Your task to perform on an android device: Add sony triple a to the cart on bestbuy, then select checkout. Image 0: 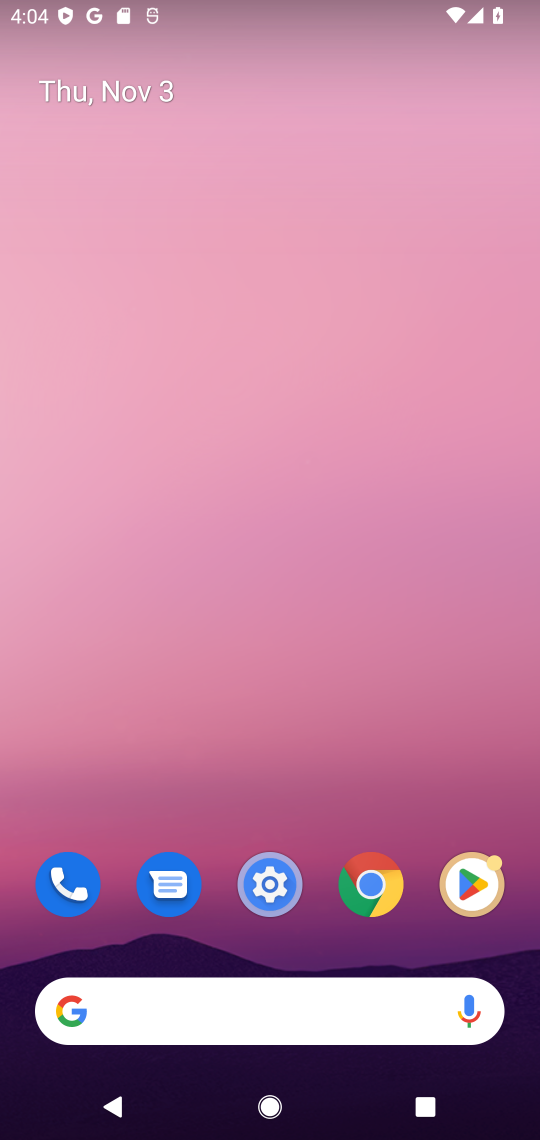
Step 0: press home button
Your task to perform on an android device: Add sony triple a to the cart on bestbuy, then select checkout. Image 1: 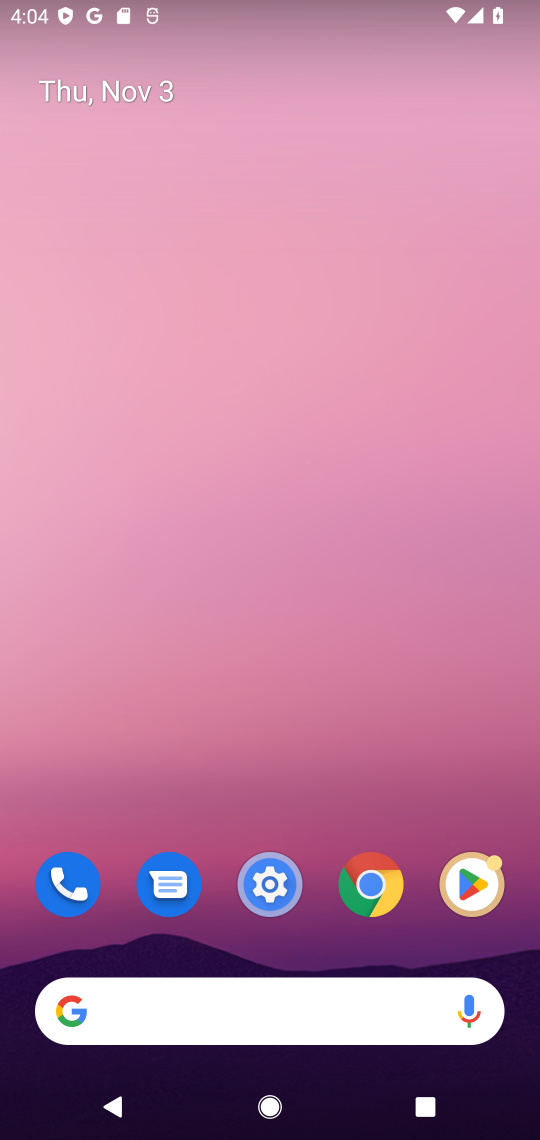
Step 1: click (100, 1009)
Your task to perform on an android device: Add sony triple a to the cart on bestbuy, then select checkout. Image 2: 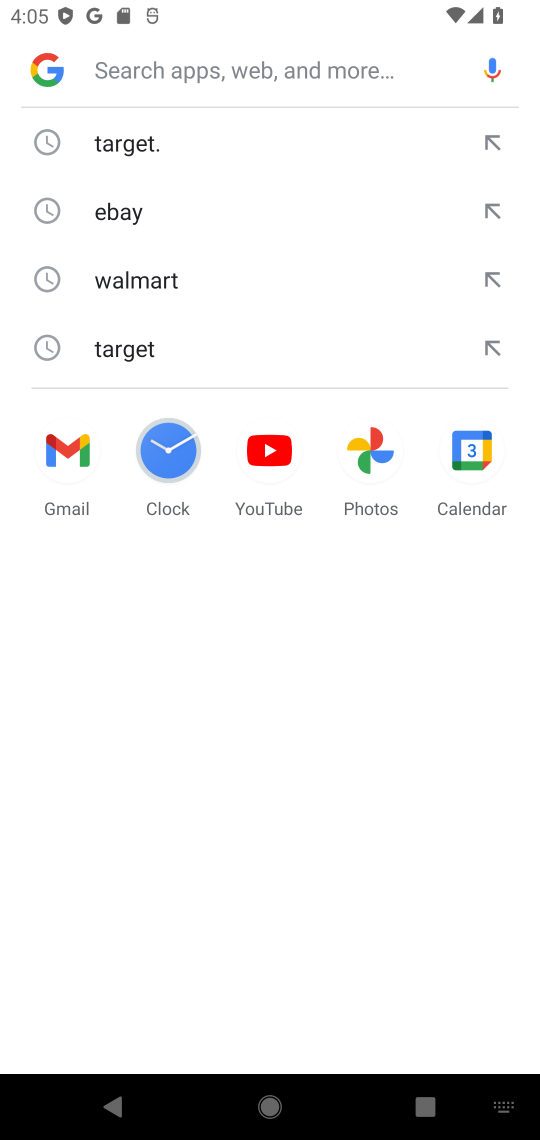
Step 2: type "bestbuy"
Your task to perform on an android device: Add sony triple a to the cart on bestbuy, then select checkout. Image 3: 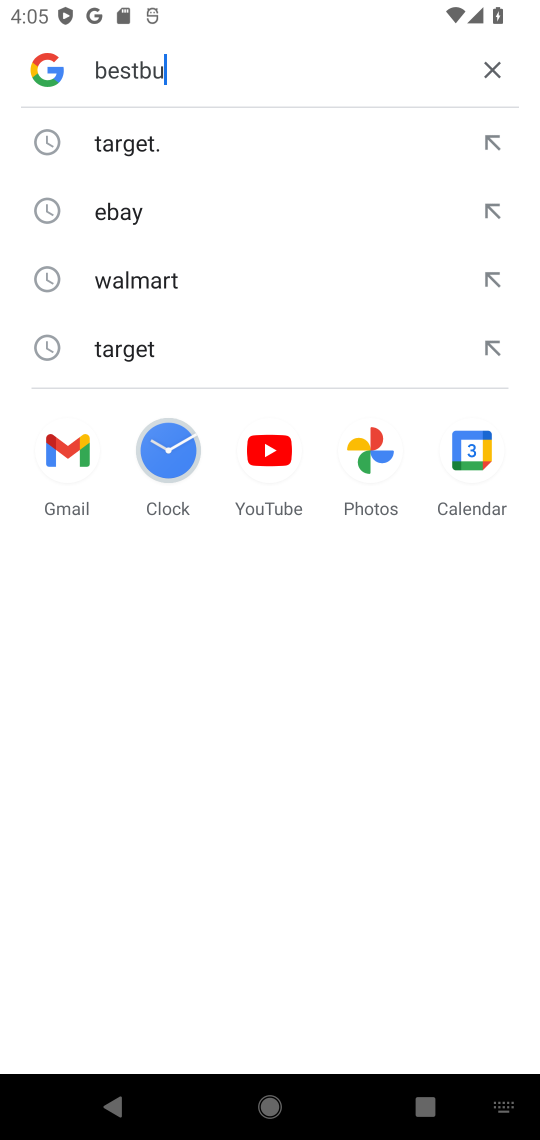
Step 3: press enter
Your task to perform on an android device: Add sony triple a to the cart on bestbuy, then select checkout. Image 4: 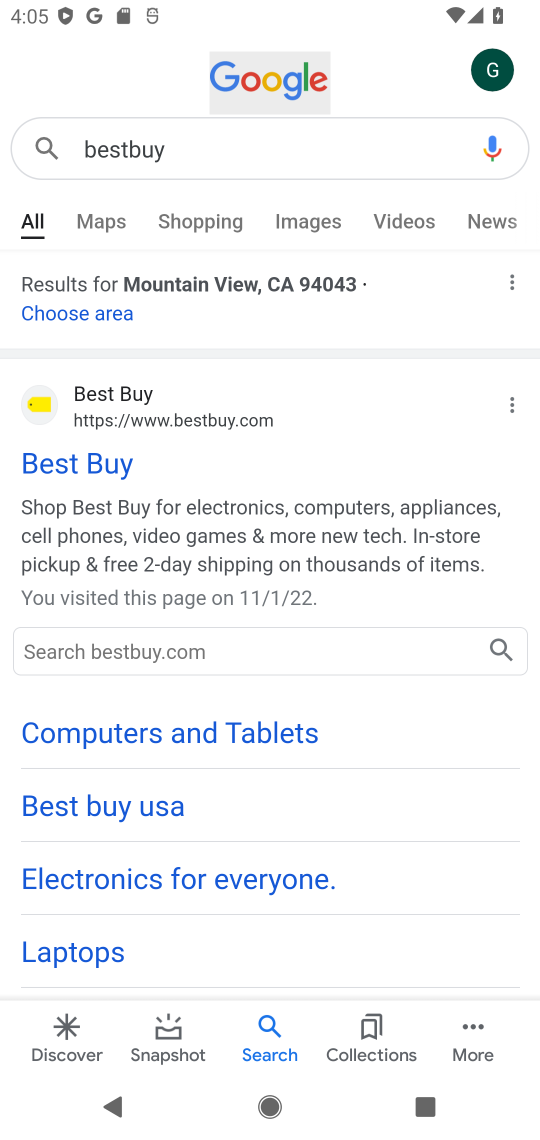
Step 4: click (78, 472)
Your task to perform on an android device: Add sony triple a to the cart on bestbuy, then select checkout. Image 5: 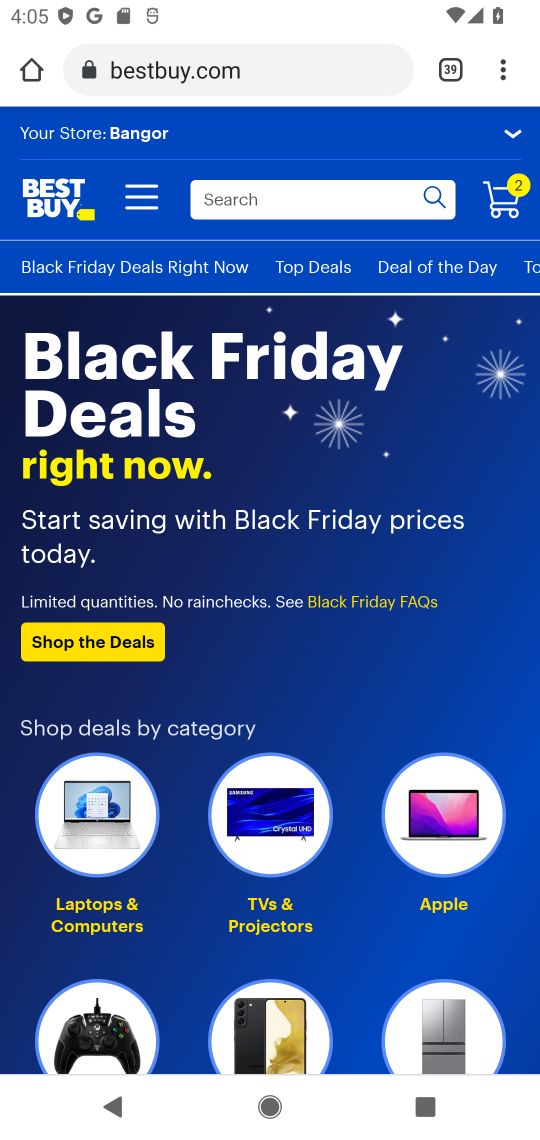
Step 5: click (228, 194)
Your task to perform on an android device: Add sony triple a to the cart on bestbuy, then select checkout. Image 6: 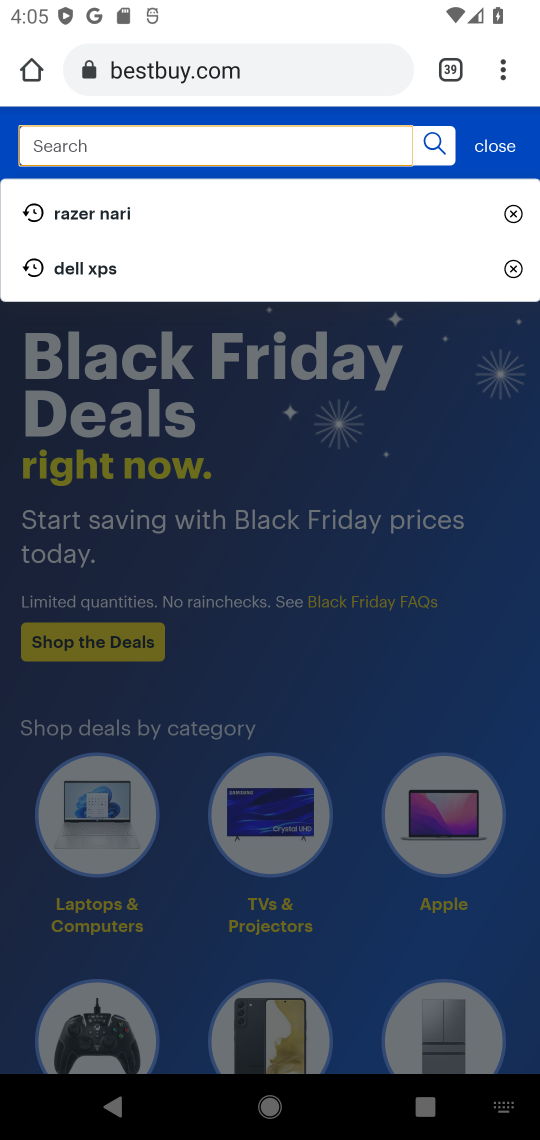
Step 6: press enter
Your task to perform on an android device: Add sony triple a to the cart on bestbuy, then select checkout. Image 7: 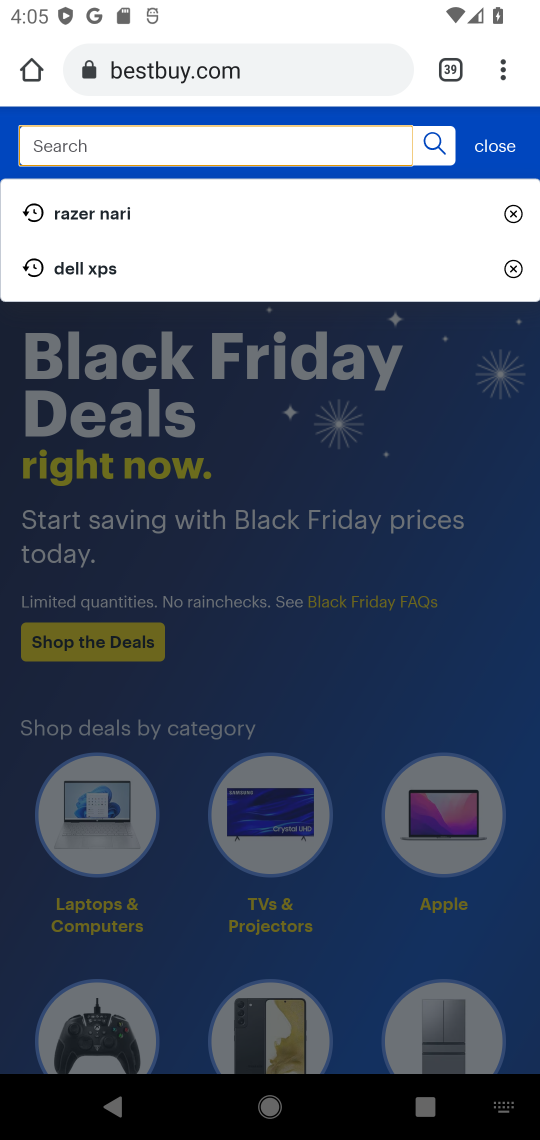
Step 7: type "sony triple a"
Your task to perform on an android device: Add sony triple a to the cart on bestbuy, then select checkout. Image 8: 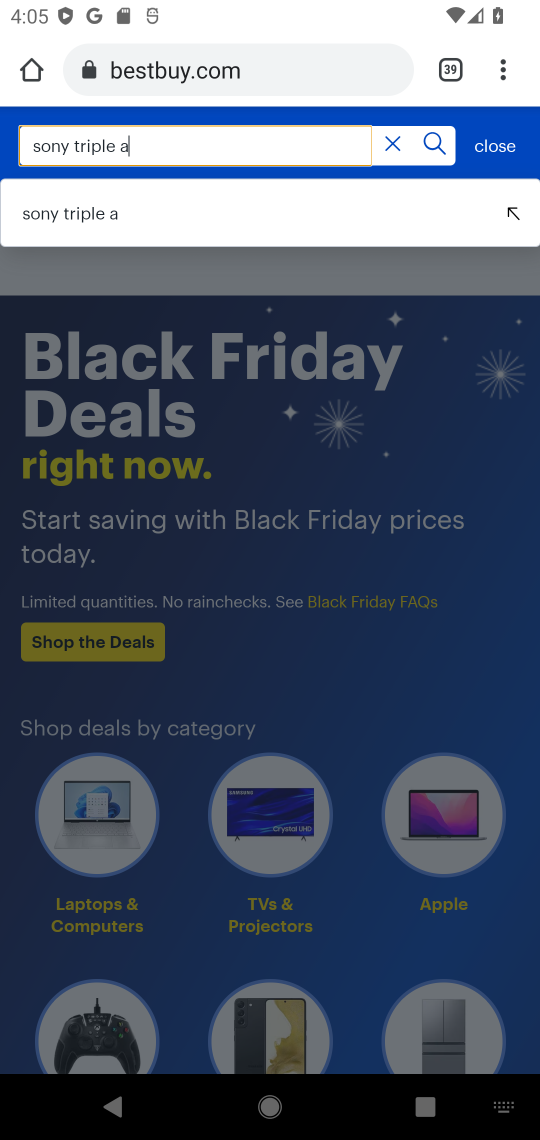
Step 8: press enter
Your task to perform on an android device: Add sony triple a to the cart on bestbuy, then select checkout. Image 9: 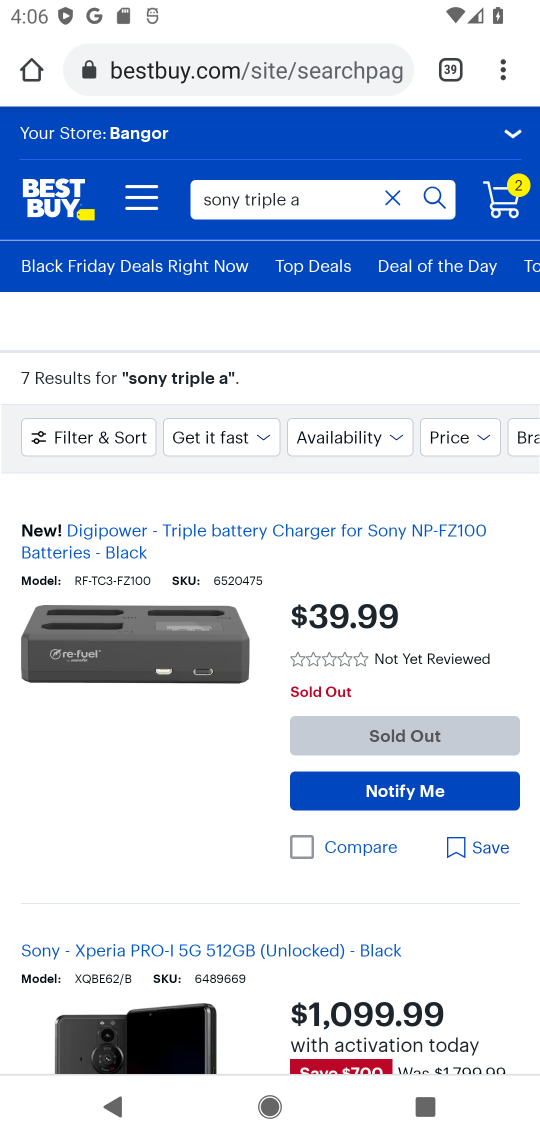
Step 9: task complete